Your task to perform on an android device: add a contact in the contacts app Image 0: 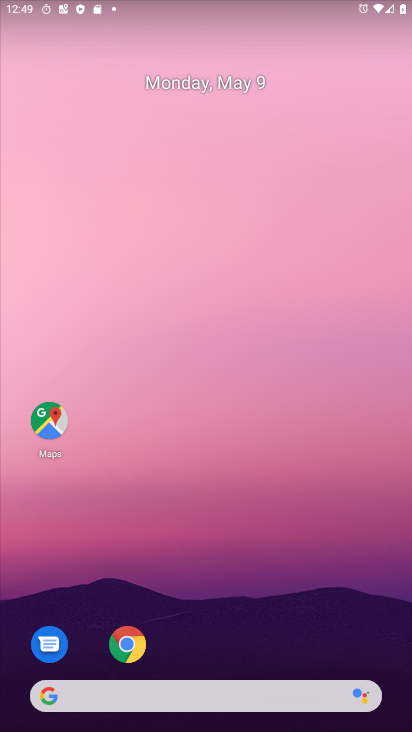
Step 0: drag from (307, 669) to (95, 70)
Your task to perform on an android device: add a contact in the contacts app Image 1: 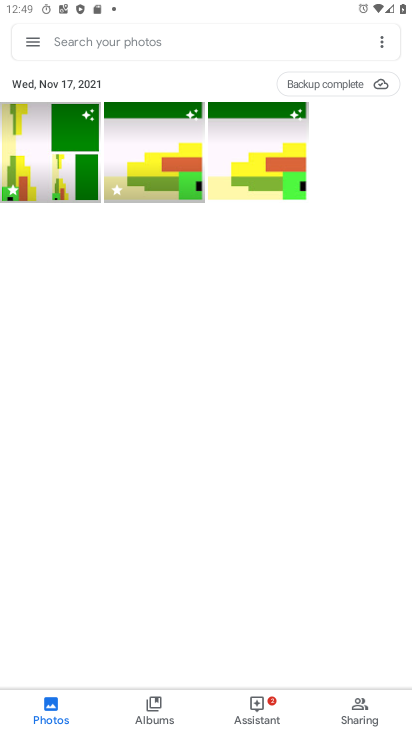
Step 1: press home button
Your task to perform on an android device: add a contact in the contacts app Image 2: 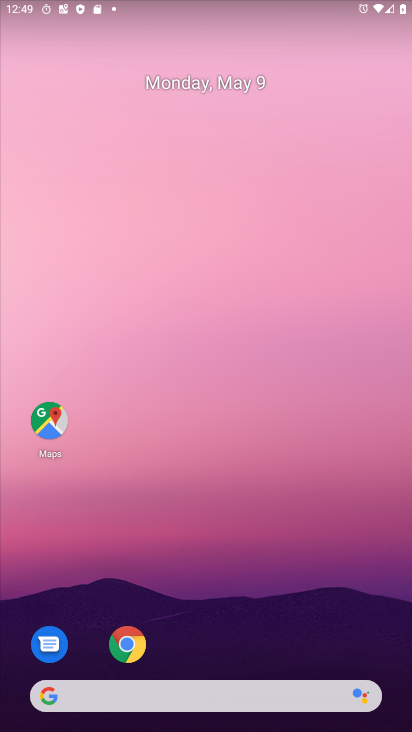
Step 2: drag from (201, 617) to (129, 246)
Your task to perform on an android device: add a contact in the contacts app Image 3: 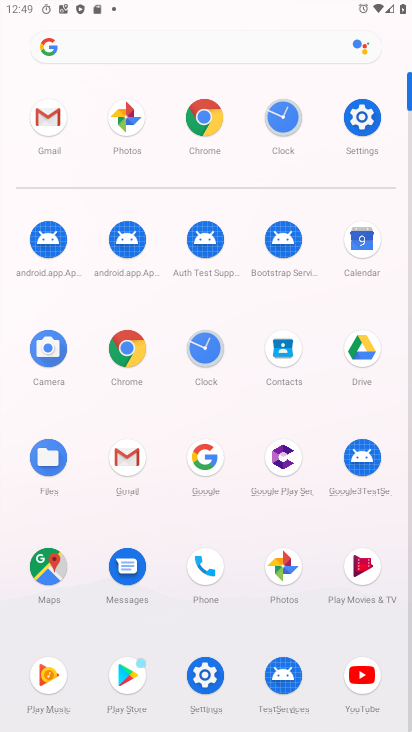
Step 3: click (283, 341)
Your task to perform on an android device: add a contact in the contacts app Image 4: 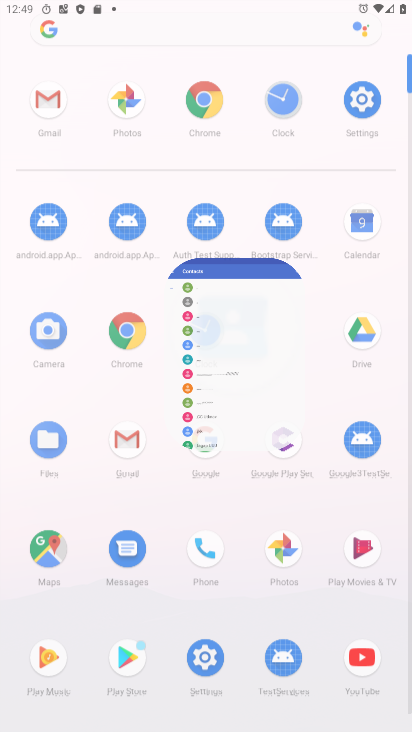
Step 4: click (283, 341)
Your task to perform on an android device: add a contact in the contacts app Image 5: 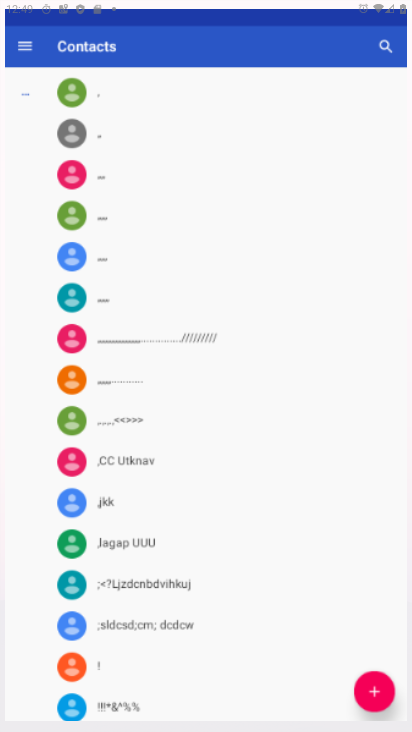
Step 5: click (283, 342)
Your task to perform on an android device: add a contact in the contacts app Image 6: 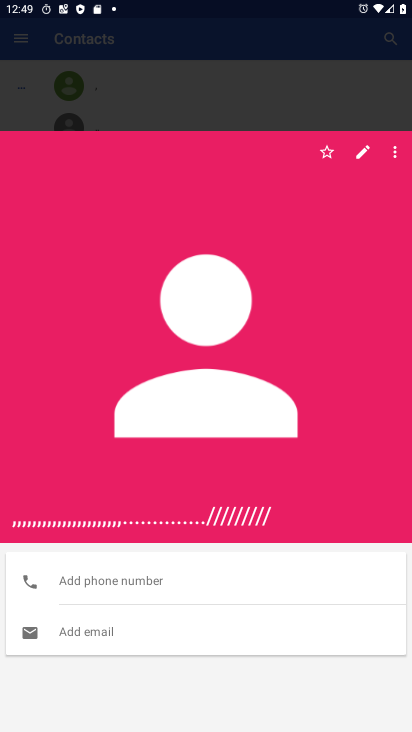
Step 6: drag from (161, 650) to (90, 187)
Your task to perform on an android device: add a contact in the contacts app Image 7: 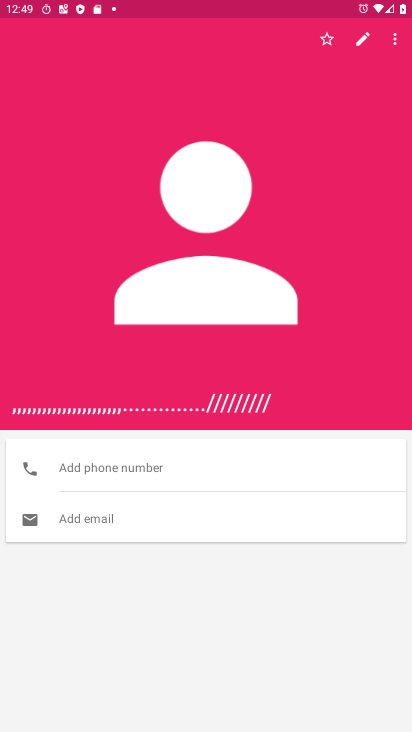
Step 7: click (76, 469)
Your task to perform on an android device: add a contact in the contacts app Image 8: 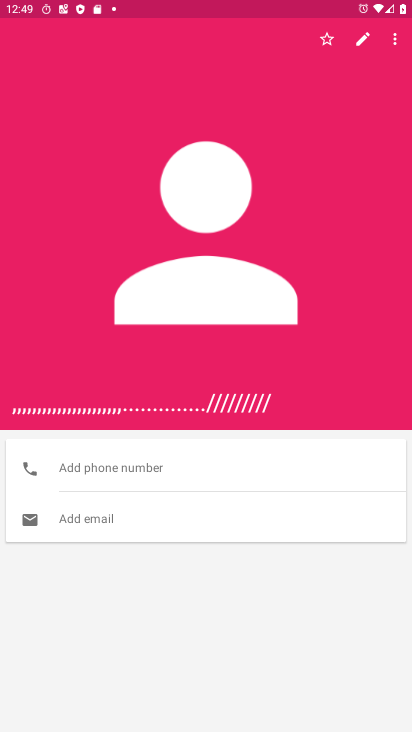
Step 8: click (76, 469)
Your task to perform on an android device: add a contact in the contacts app Image 9: 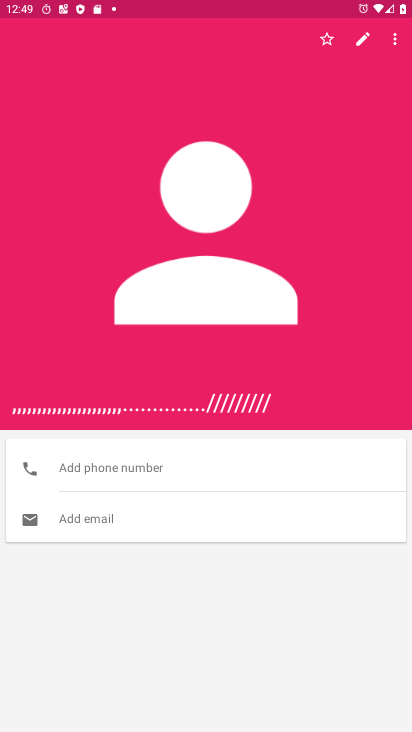
Step 9: click (77, 469)
Your task to perform on an android device: add a contact in the contacts app Image 10: 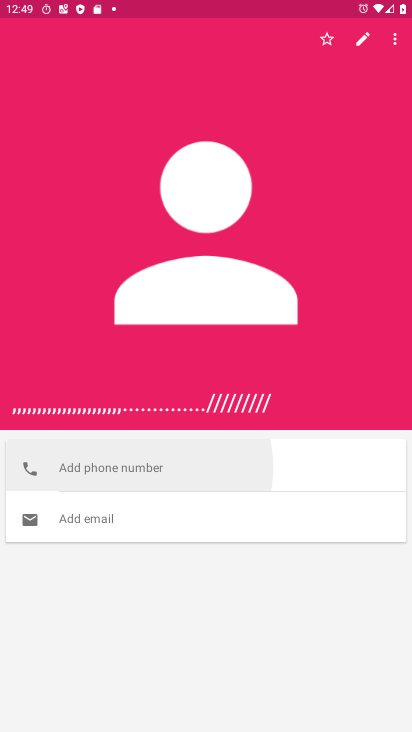
Step 10: click (79, 469)
Your task to perform on an android device: add a contact in the contacts app Image 11: 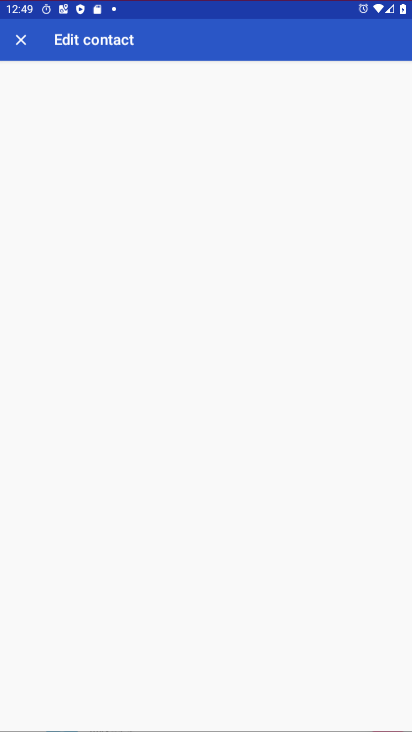
Step 11: click (81, 466)
Your task to perform on an android device: add a contact in the contacts app Image 12: 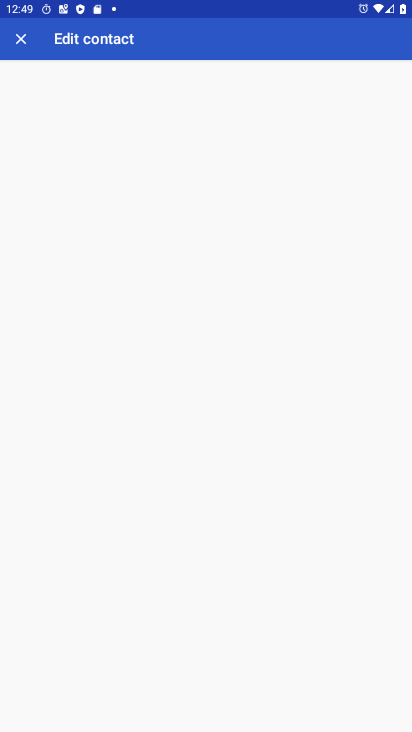
Step 12: click (81, 466)
Your task to perform on an android device: add a contact in the contacts app Image 13: 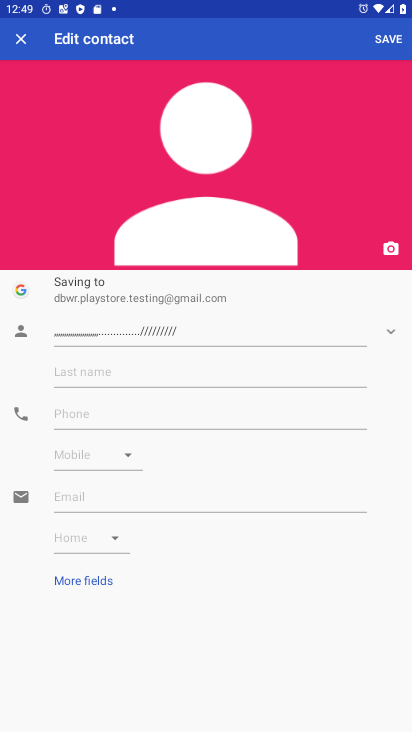
Step 13: click (69, 327)
Your task to perform on an android device: add a contact in the contacts app Image 14: 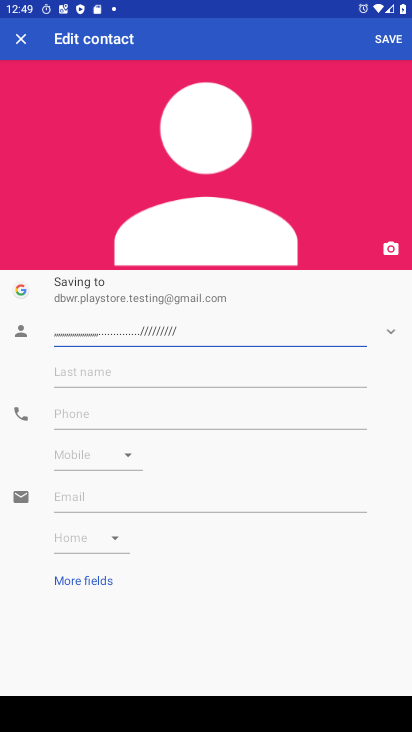
Step 14: type "manka"
Your task to perform on an android device: add a contact in the contacts app Image 15: 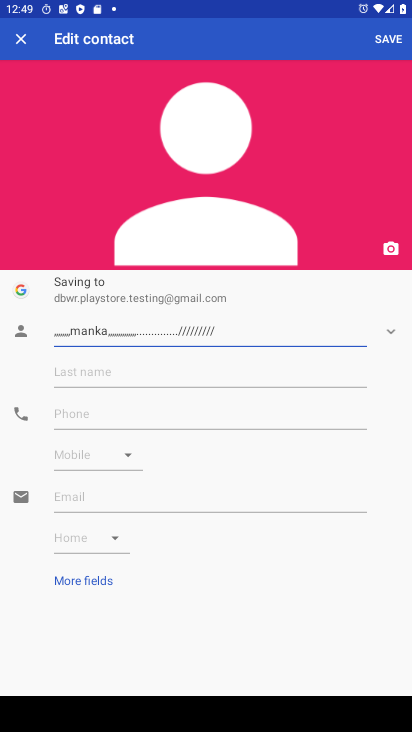
Step 15: click (69, 424)
Your task to perform on an android device: add a contact in the contacts app Image 16: 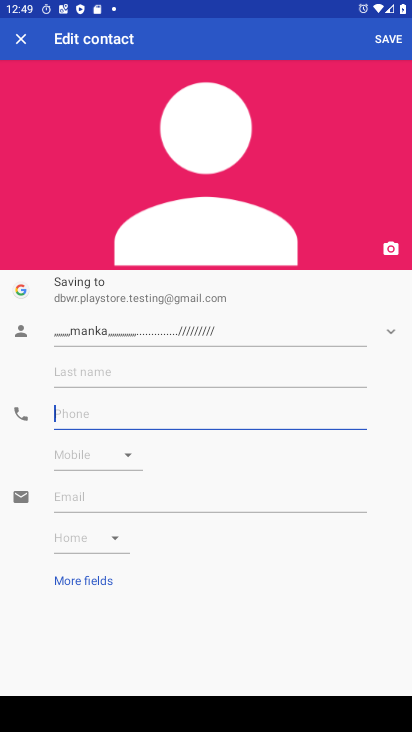
Step 16: type "97890899867"
Your task to perform on an android device: add a contact in the contacts app Image 17: 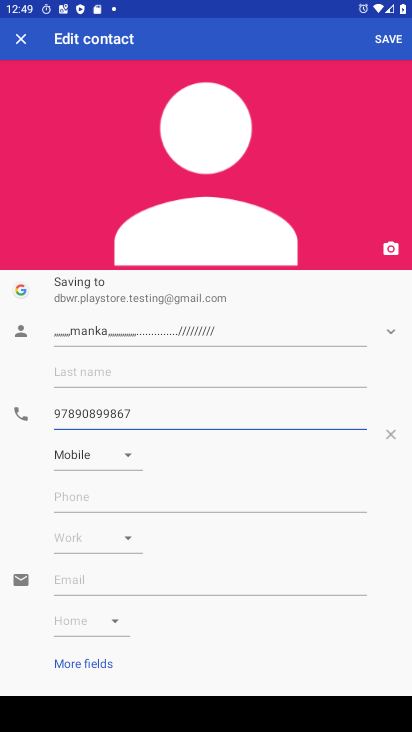
Step 17: click (375, 38)
Your task to perform on an android device: add a contact in the contacts app Image 18: 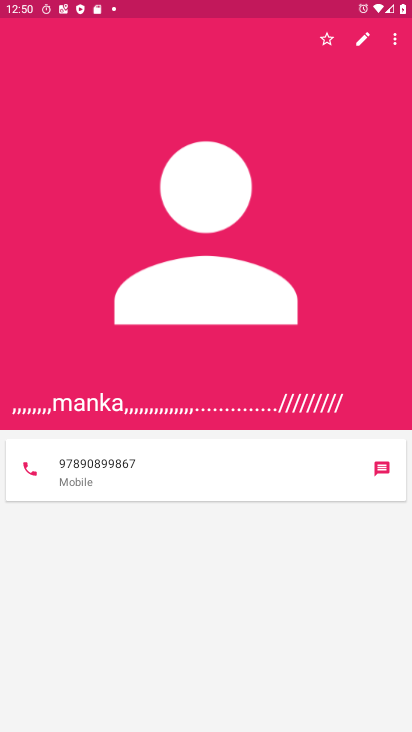
Step 18: task complete